Your task to perform on an android device: install app "Spotify" Image 0: 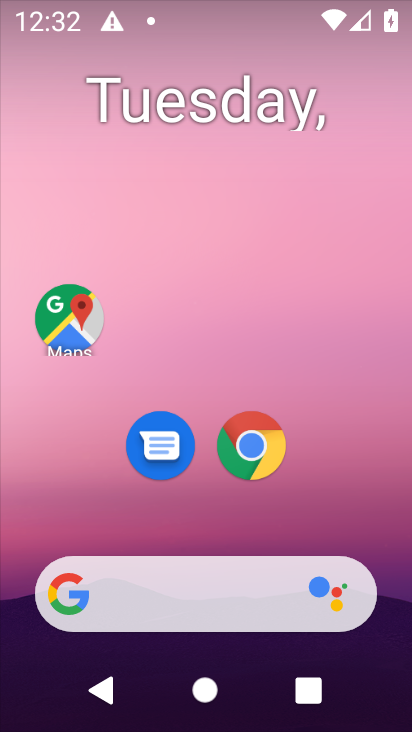
Step 0: drag from (402, 518) to (325, 257)
Your task to perform on an android device: install app "Spotify" Image 1: 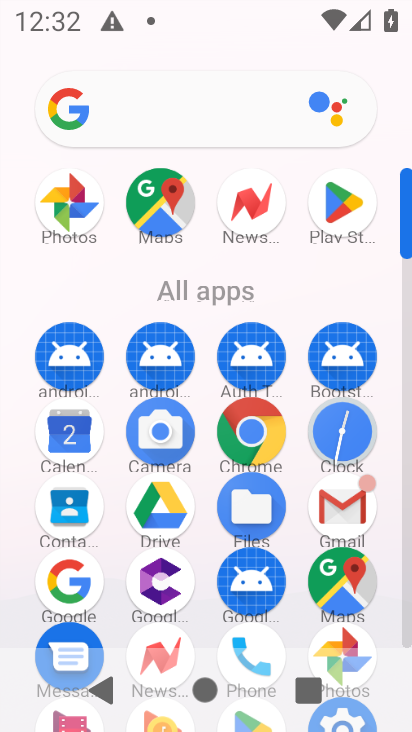
Step 1: click (342, 206)
Your task to perform on an android device: install app "Spotify" Image 2: 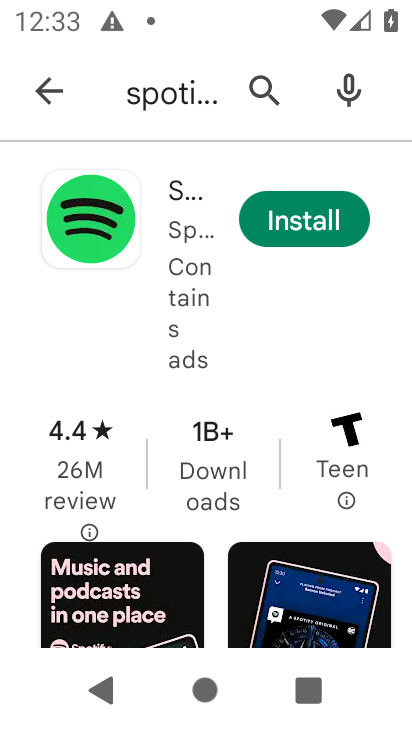
Step 2: click (335, 220)
Your task to perform on an android device: install app "Spotify" Image 3: 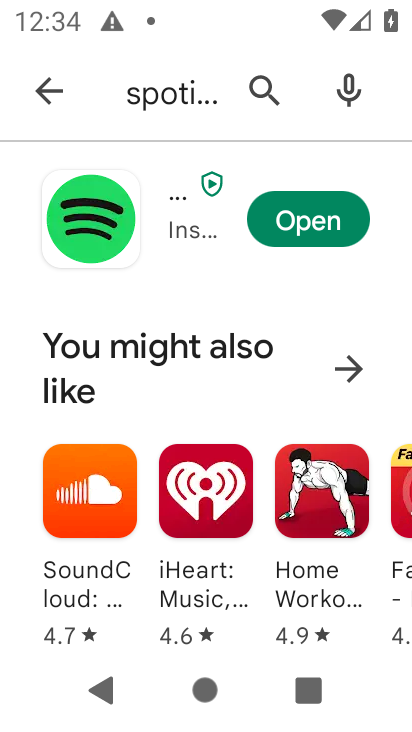
Step 3: task complete